Your task to perform on an android device: Open the calendar app, open the side menu, and click the "Day" option Image 0: 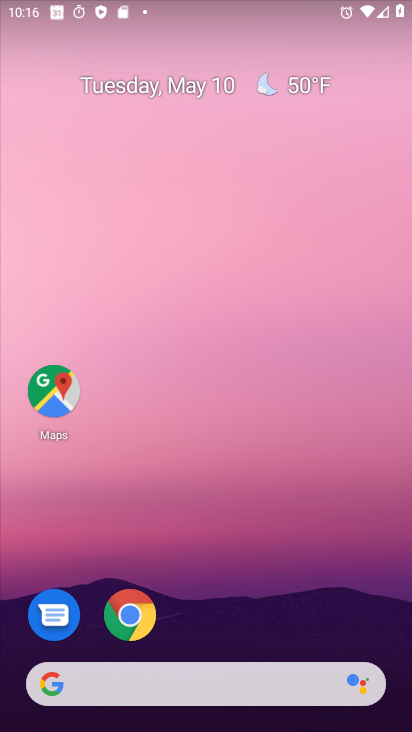
Step 0: drag from (219, 646) to (248, 125)
Your task to perform on an android device: Open the calendar app, open the side menu, and click the "Day" option Image 1: 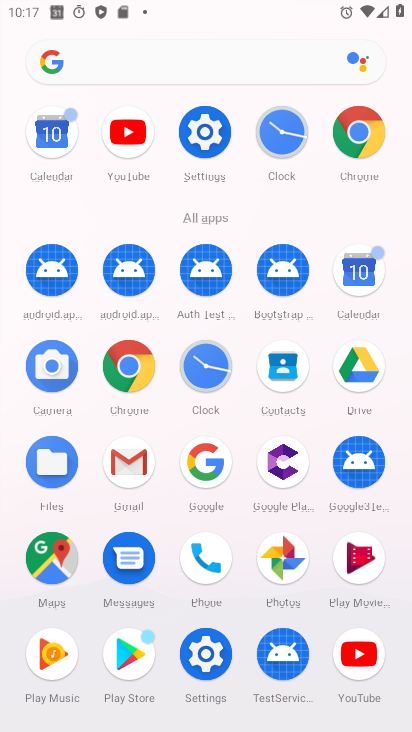
Step 1: click (358, 262)
Your task to perform on an android device: Open the calendar app, open the side menu, and click the "Day" option Image 2: 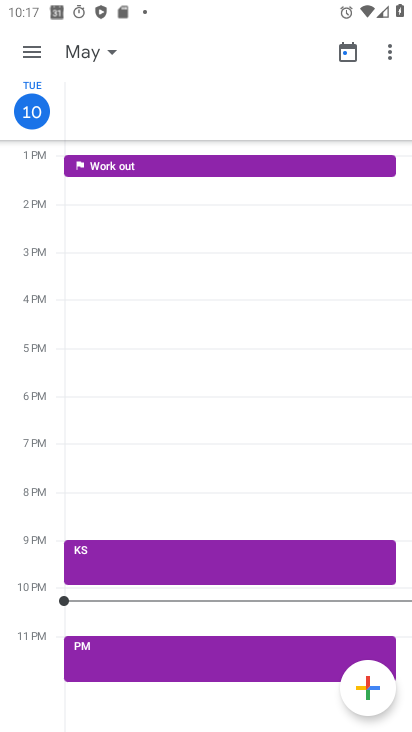
Step 2: click (25, 45)
Your task to perform on an android device: Open the calendar app, open the side menu, and click the "Day" option Image 3: 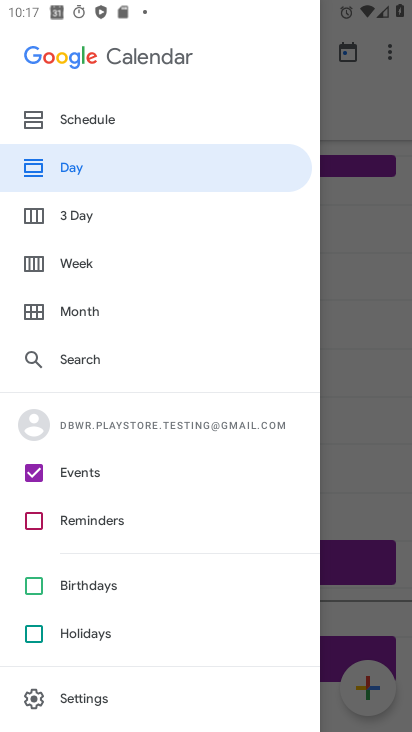
Step 3: click (46, 171)
Your task to perform on an android device: Open the calendar app, open the side menu, and click the "Day" option Image 4: 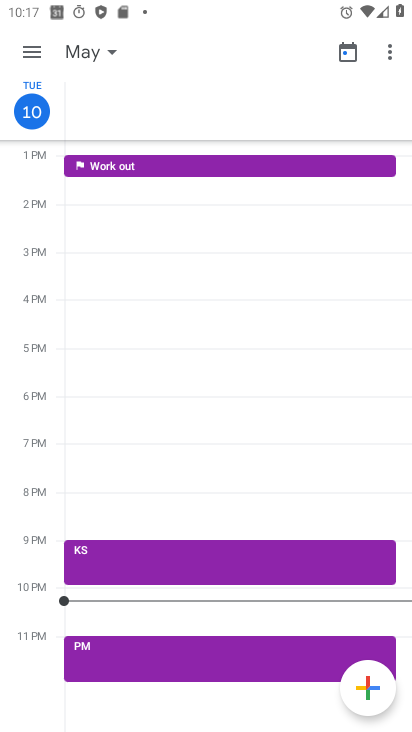
Step 4: task complete